Your task to perform on an android device: Go to wifi settings Image 0: 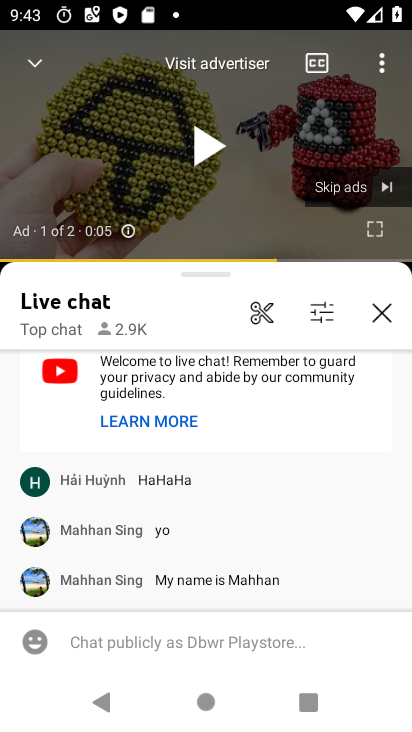
Step 0: press home button
Your task to perform on an android device: Go to wifi settings Image 1: 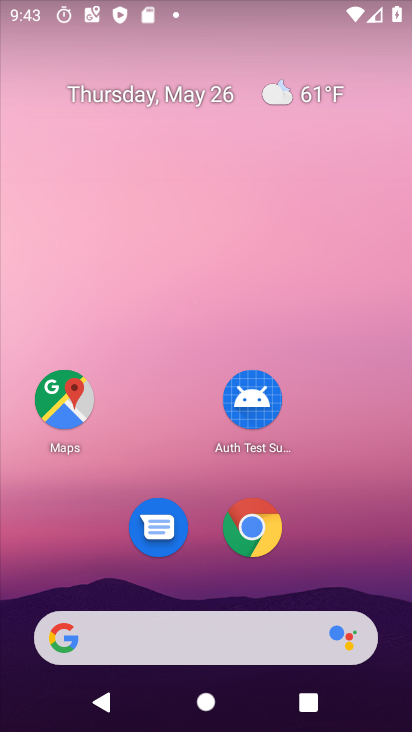
Step 1: drag from (316, 574) to (285, 90)
Your task to perform on an android device: Go to wifi settings Image 2: 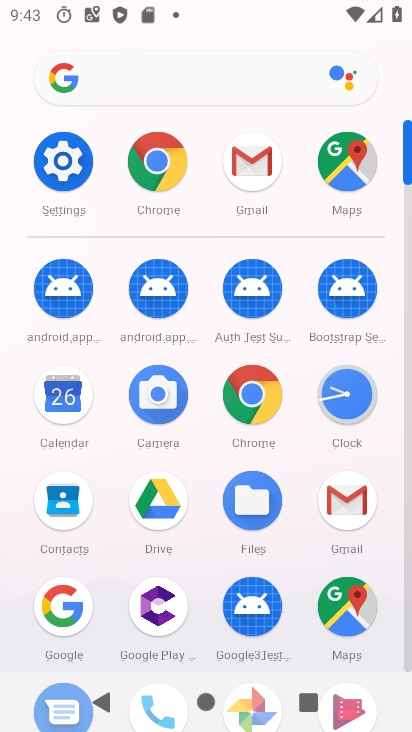
Step 2: click (61, 172)
Your task to perform on an android device: Go to wifi settings Image 3: 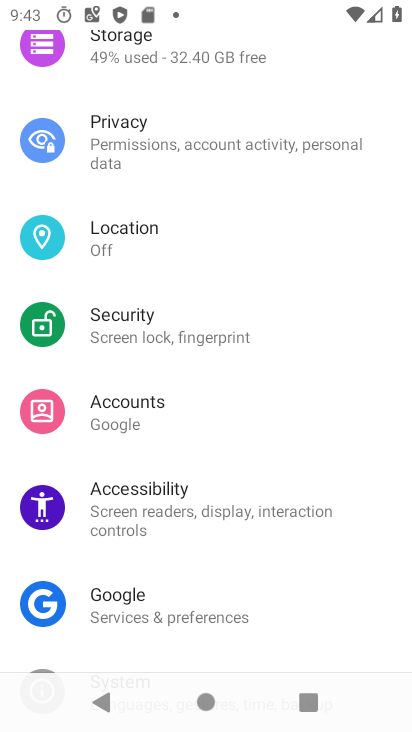
Step 3: drag from (234, 226) to (309, 530)
Your task to perform on an android device: Go to wifi settings Image 4: 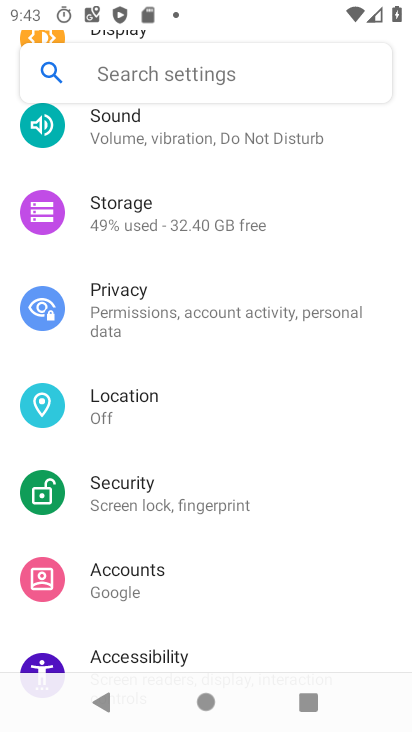
Step 4: drag from (234, 182) to (317, 593)
Your task to perform on an android device: Go to wifi settings Image 5: 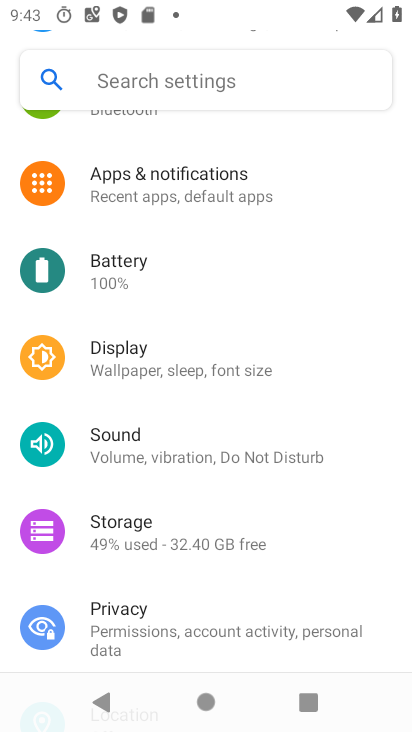
Step 5: drag from (243, 246) to (327, 643)
Your task to perform on an android device: Go to wifi settings Image 6: 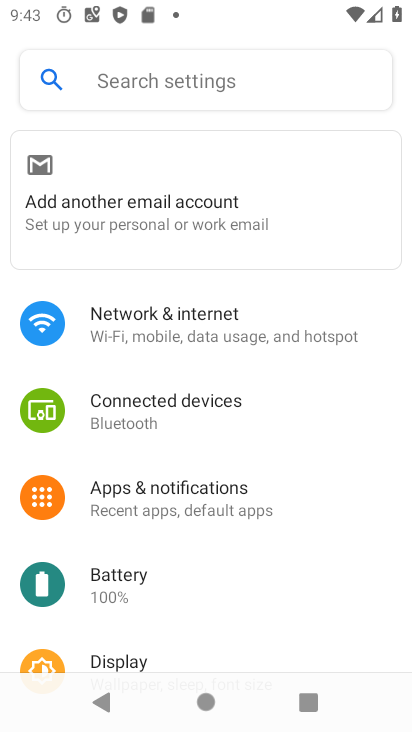
Step 6: click (124, 345)
Your task to perform on an android device: Go to wifi settings Image 7: 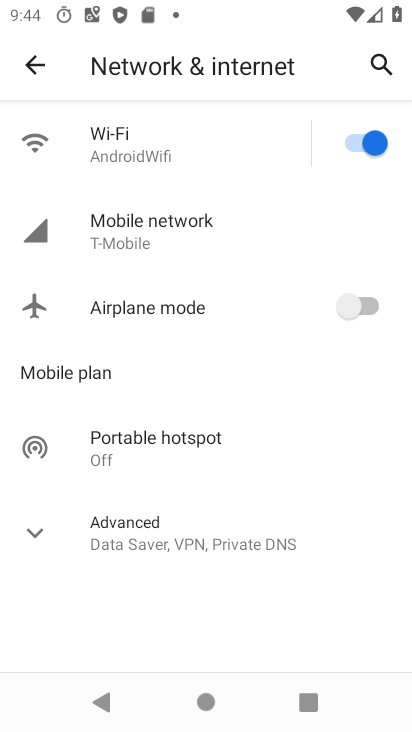
Step 7: click (133, 142)
Your task to perform on an android device: Go to wifi settings Image 8: 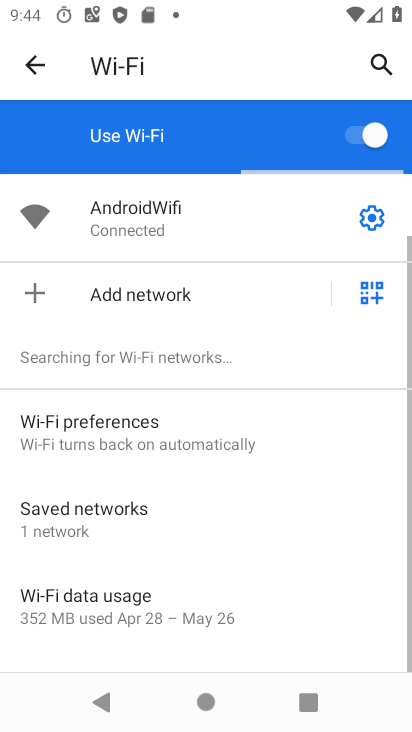
Step 8: task complete